Your task to perform on an android device: Is it going to rain this weekend? Image 0: 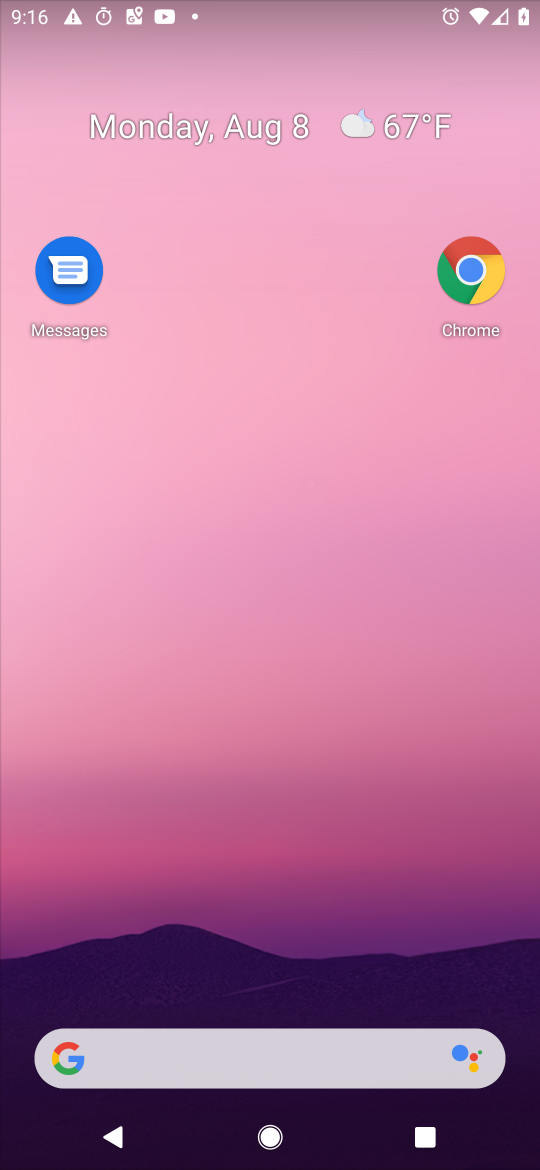
Step 0: drag from (267, 927) to (173, 0)
Your task to perform on an android device: Is it going to rain this weekend? Image 1: 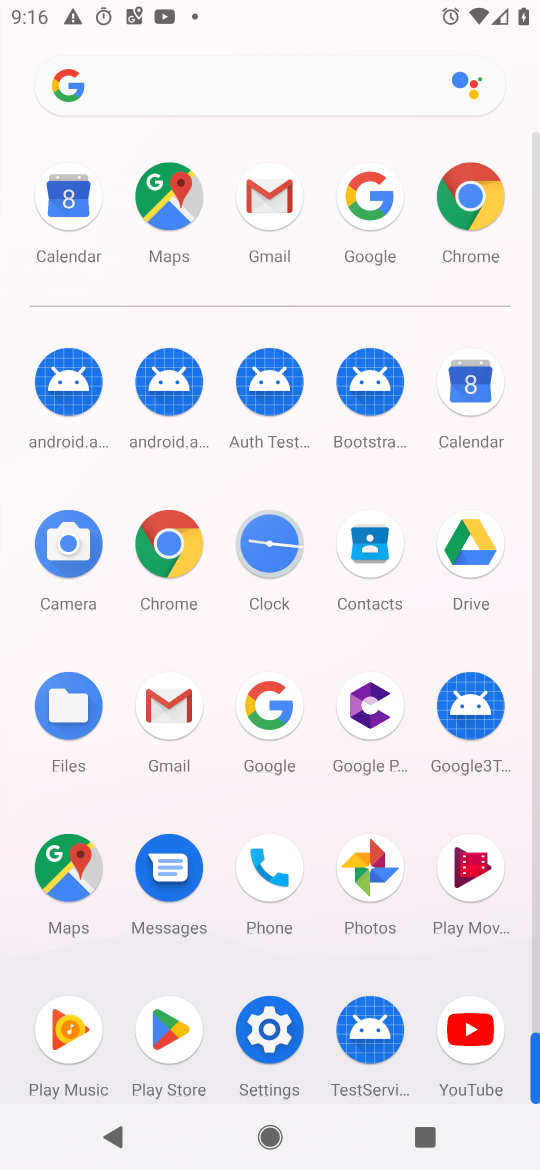
Step 1: click (147, 90)
Your task to perform on an android device: Is it going to rain this weekend? Image 2: 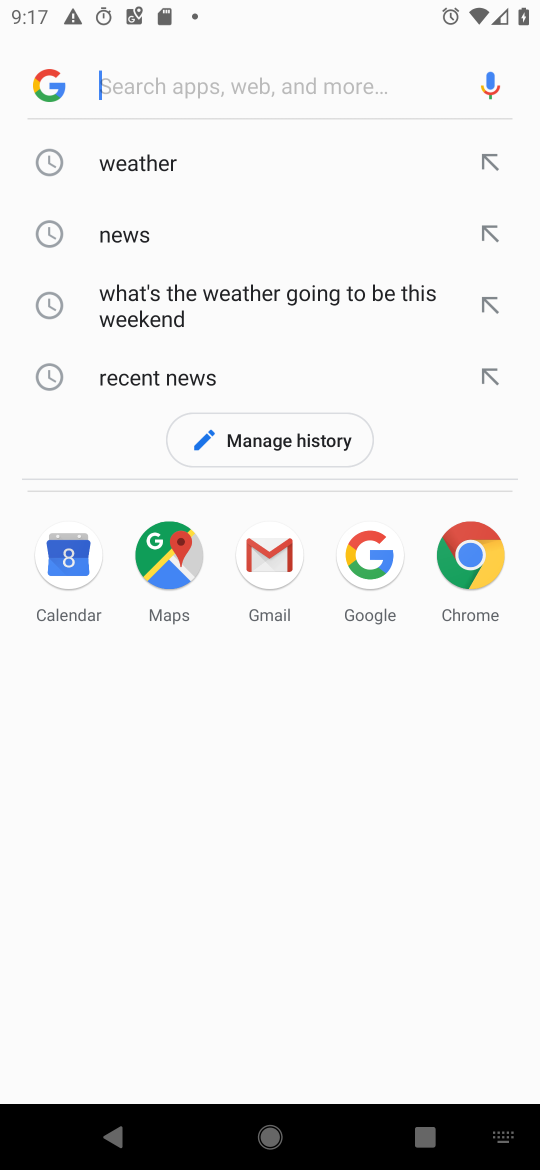
Step 2: type "Is it going to rain this weekend?"
Your task to perform on an android device: Is it going to rain this weekend? Image 3: 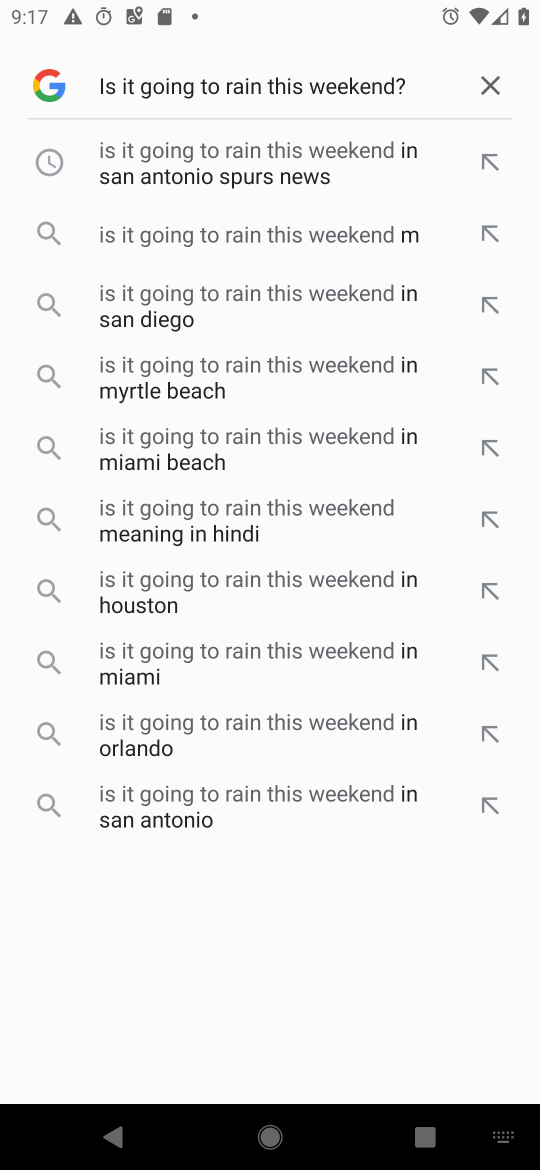
Step 3: click (90, 241)
Your task to perform on an android device: Is it going to rain this weekend? Image 4: 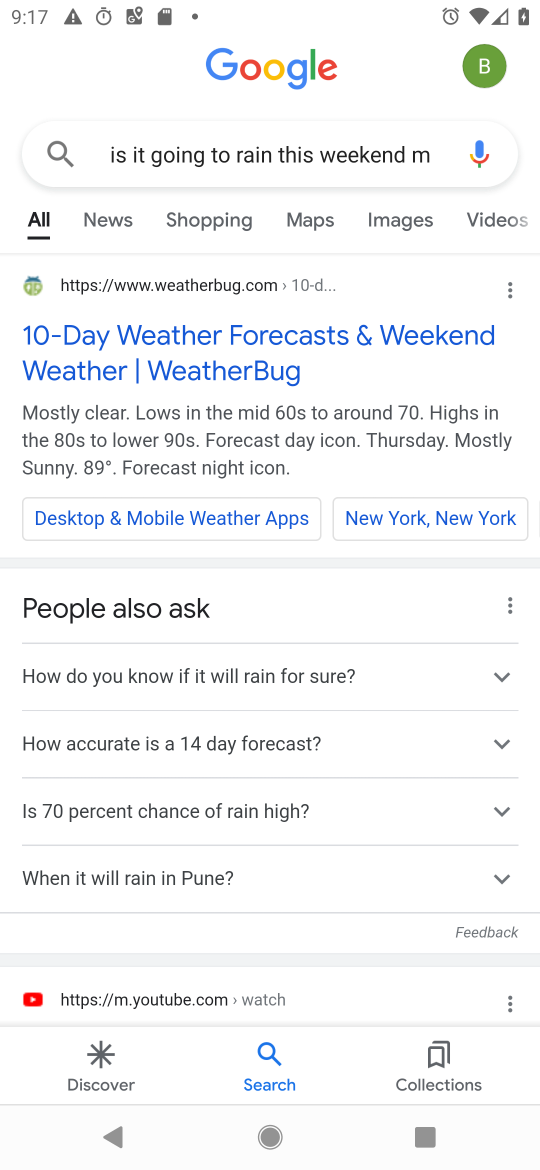
Step 4: drag from (278, 808) to (348, 465)
Your task to perform on an android device: Is it going to rain this weekend? Image 5: 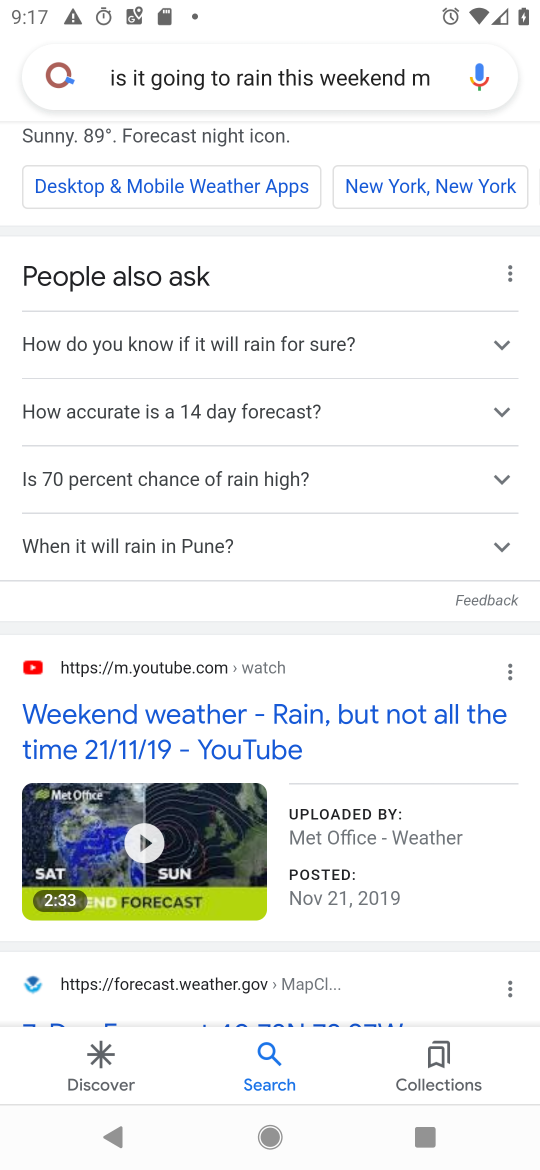
Step 5: drag from (344, 394) to (302, 779)
Your task to perform on an android device: Is it going to rain this weekend? Image 6: 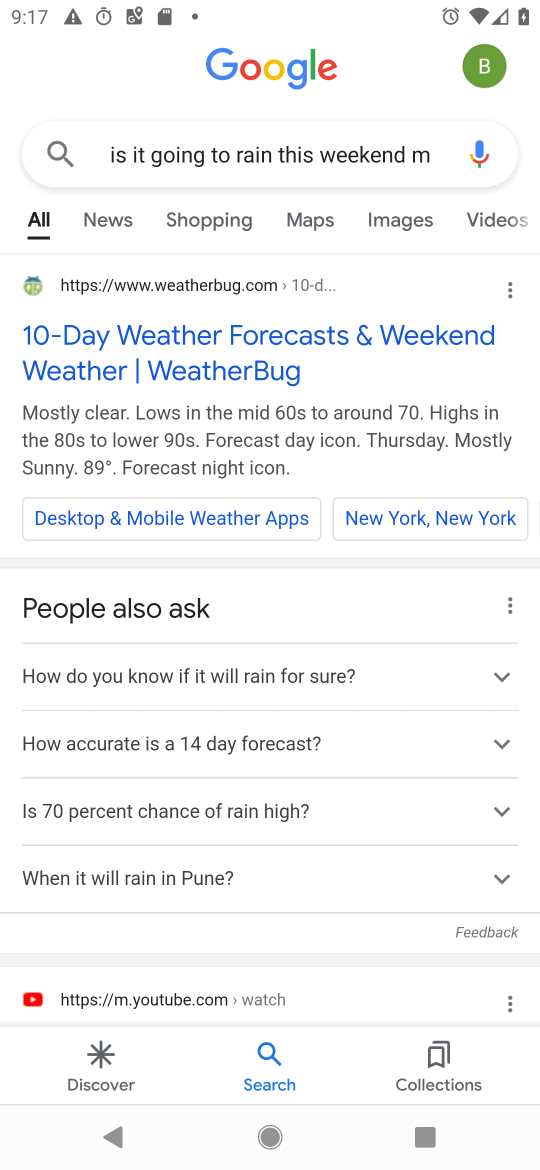
Step 6: click (252, 356)
Your task to perform on an android device: Is it going to rain this weekend? Image 7: 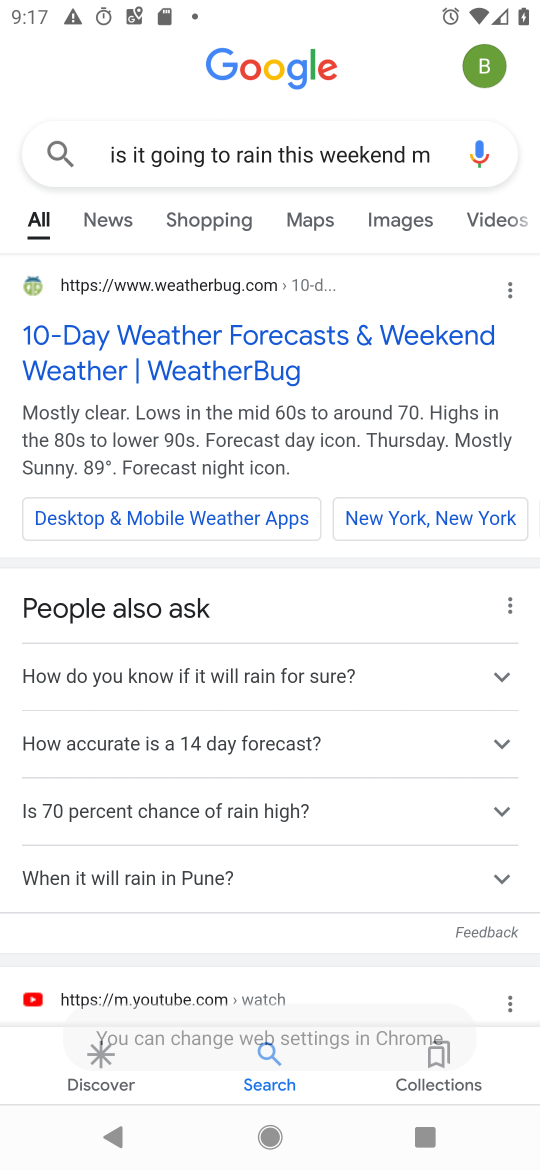
Step 7: task complete